Your task to perform on an android device: Open the web browser Image 0: 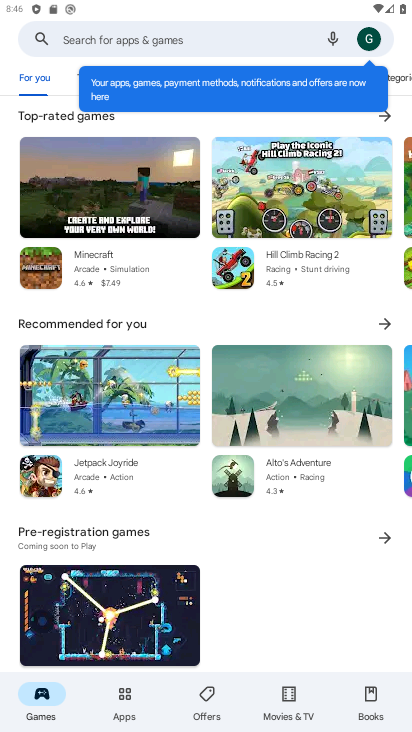
Step 0: press home button
Your task to perform on an android device: Open the web browser Image 1: 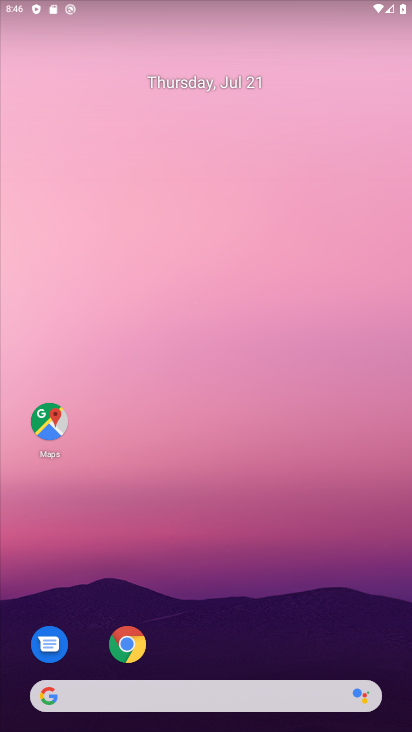
Step 1: drag from (203, 620) to (337, 15)
Your task to perform on an android device: Open the web browser Image 2: 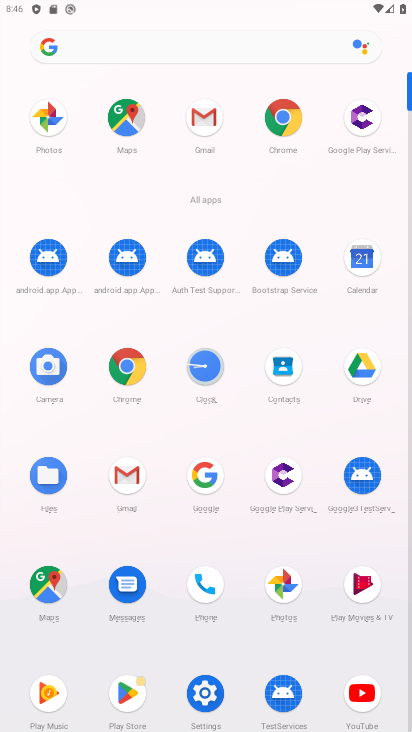
Step 2: click (288, 126)
Your task to perform on an android device: Open the web browser Image 3: 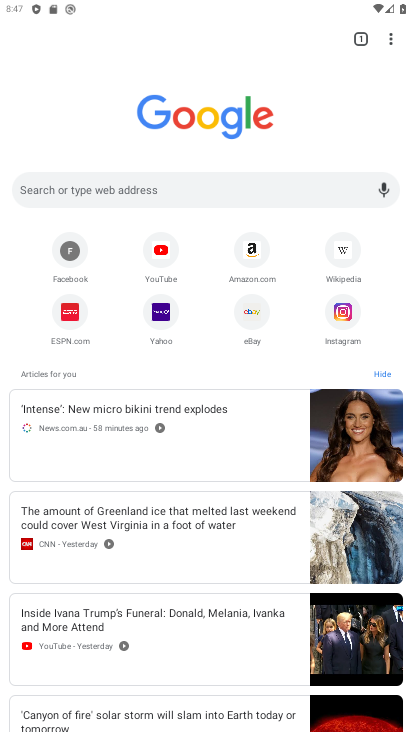
Step 3: task complete